Your task to perform on an android device: Go to Maps Image 0: 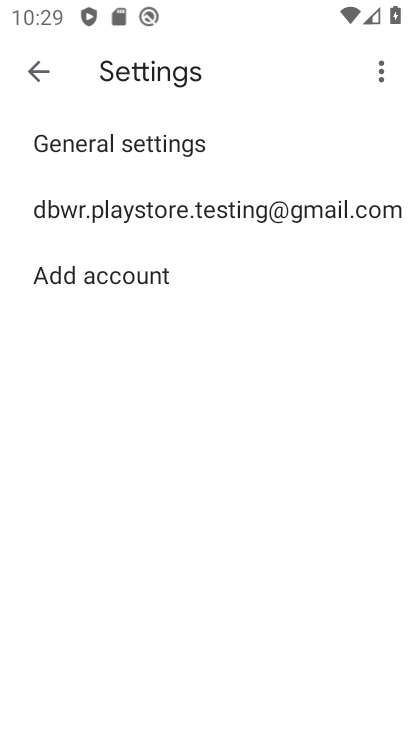
Step 0: press home button
Your task to perform on an android device: Go to Maps Image 1: 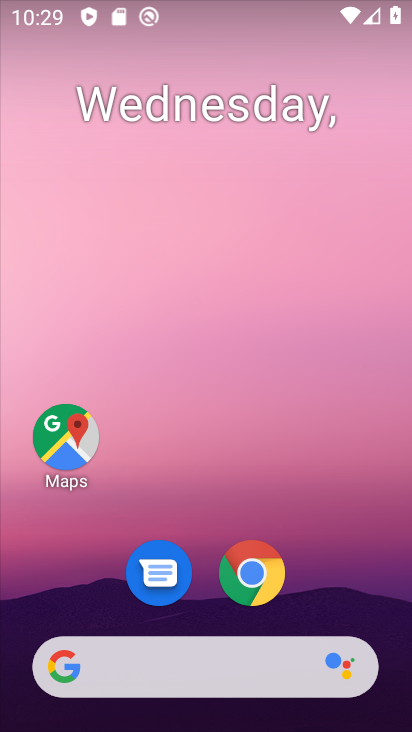
Step 1: click (67, 437)
Your task to perform on an android device: Go to Maps Image 2: 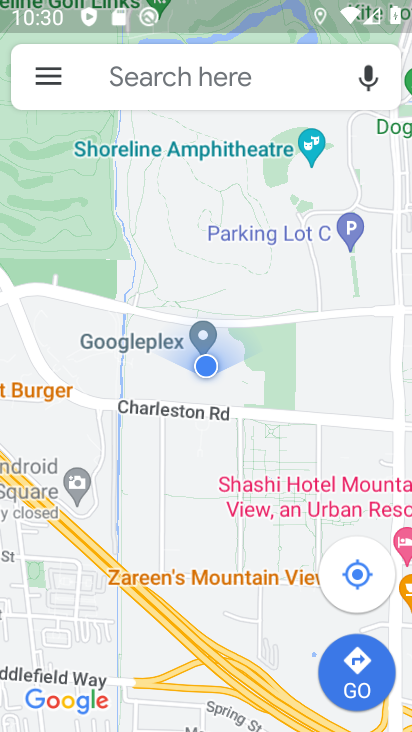
Step 2: task complete